Your task to perform on an android device: open app "Expedia: Hotels, Flights & Car" (install if not already installed) and go to login screen Image 0: 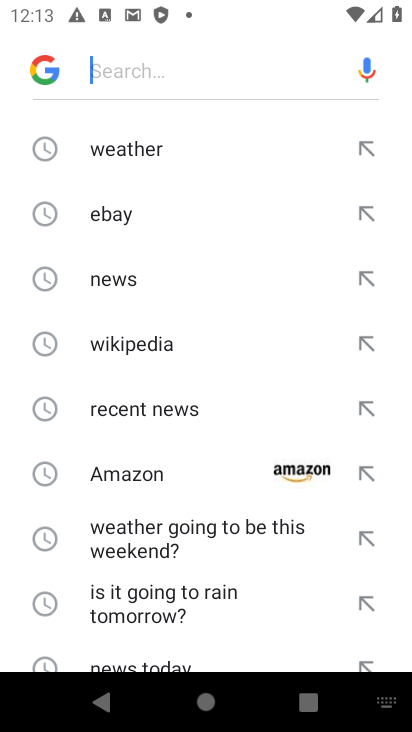
Step 0: press home button
Your task to perform on an android device: open app "Expedia: Hotels, Flights & Car" (install if not already installed) and go to login screen Image 1: 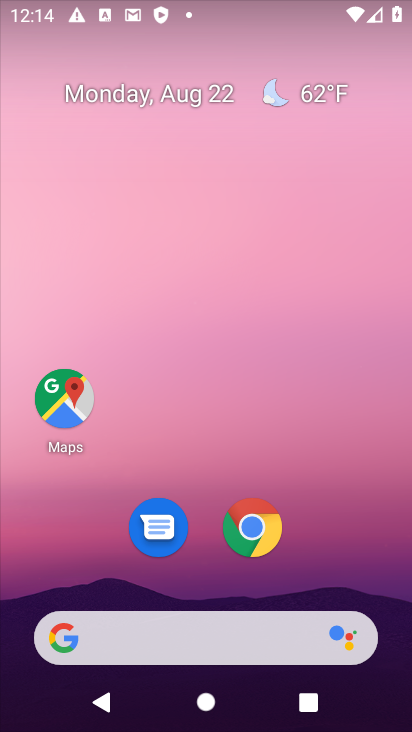
Step 1: drag from (174, 638) to (318, 8)
Your task to perform on an android device: open app "Expedia: Hotels, Flights & Car" (install if not already installed) and go to login screen Image 2: 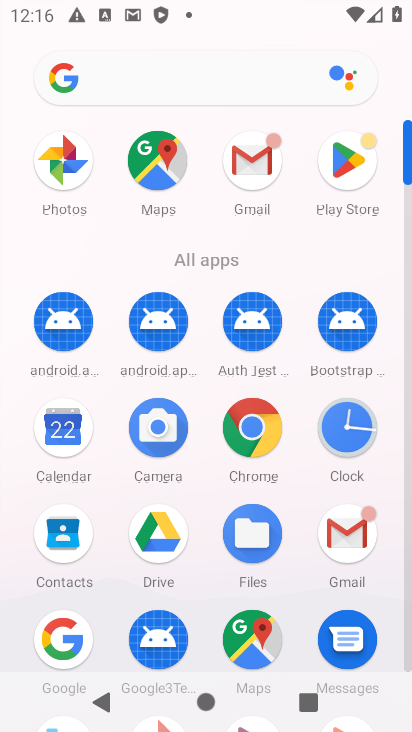
Step 2: click (341, 179)
Your task to perform on an android device: open app "Expedia: Hotels, Flights & Car" (install if not already installed) and go to login screen Image 3: 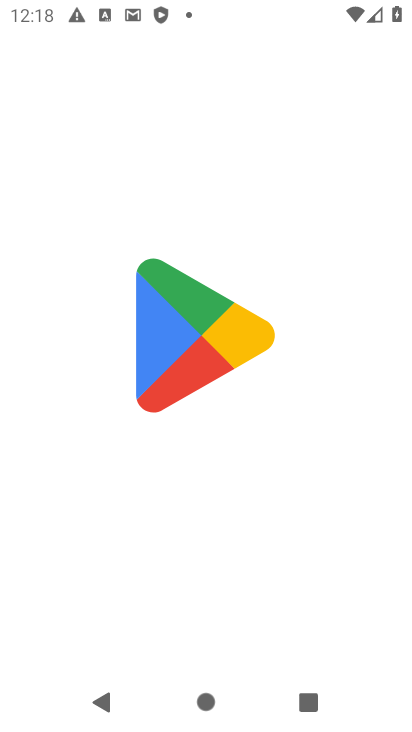
Step 3: task complete